Your task to perform on an android device: Open internet settings Image 0: 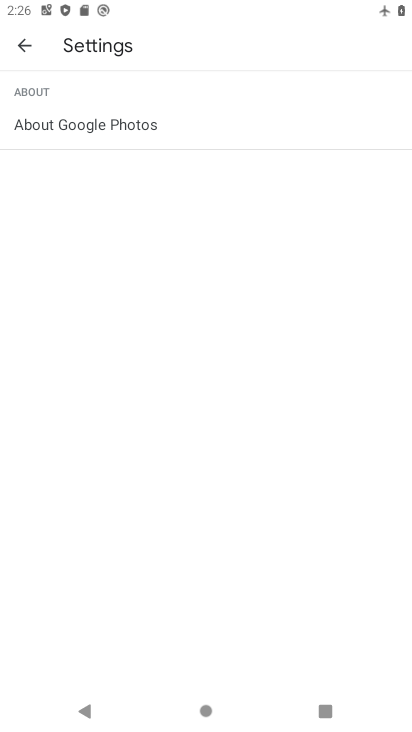
Step 0: press home button
Your task to perform on an android device: Open internet settings Image 1: 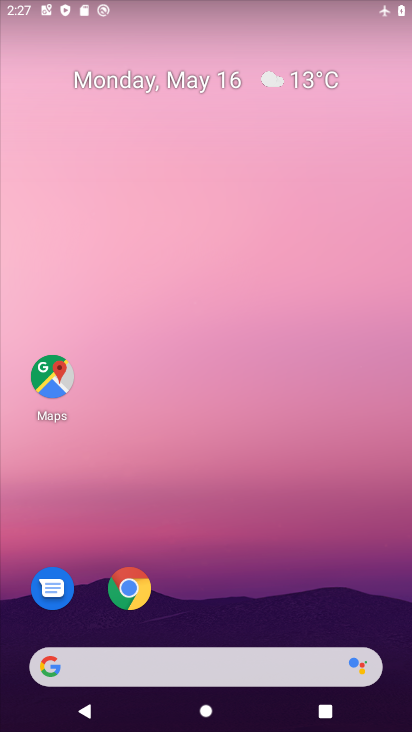
Step 1: drag from (295, 637) to (344, 5)
Your task to perform on an android device: Open internet settings Image 2: 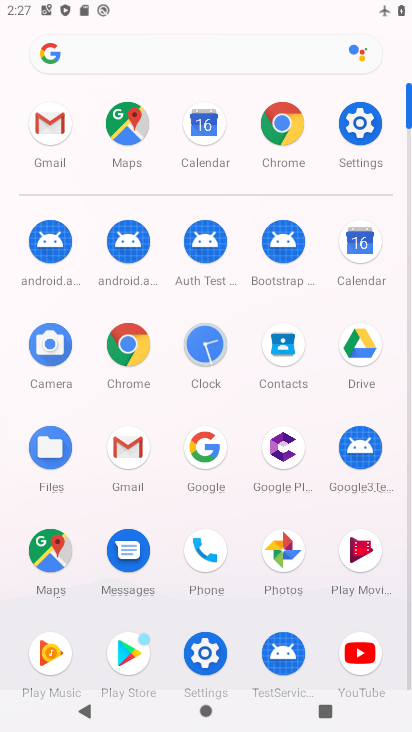
Step 2: click (349, 121)
Your task to perform on an android device: Open internet settings Image 3: 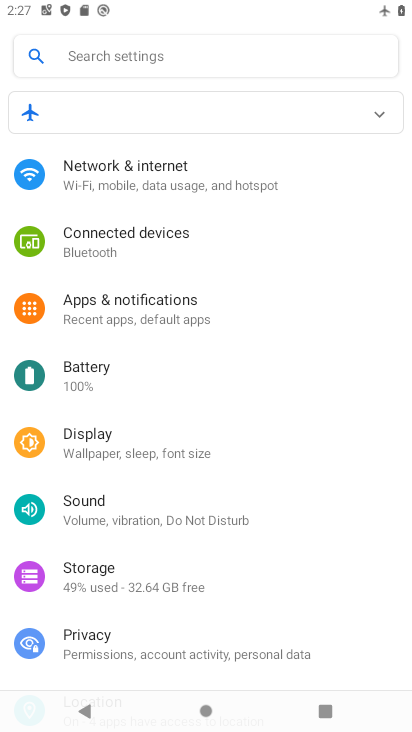
Step 3: click (145, 184)
Your task to perform on an android device: Open internet settings Image 4: 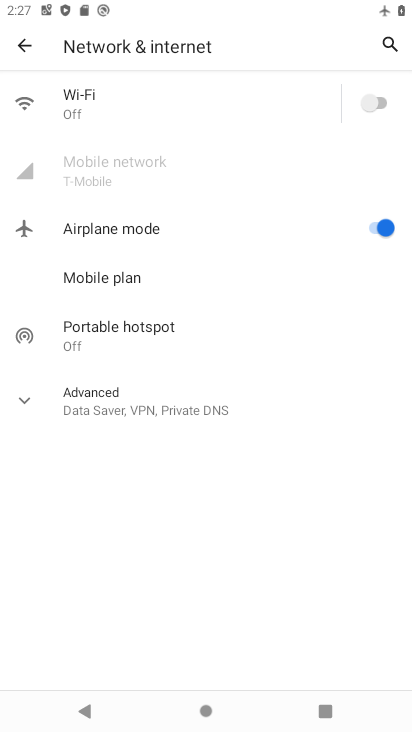
Step 4: task complete